Your task to perform on an android device: toggle notifications settings in the gmail app Image 0: 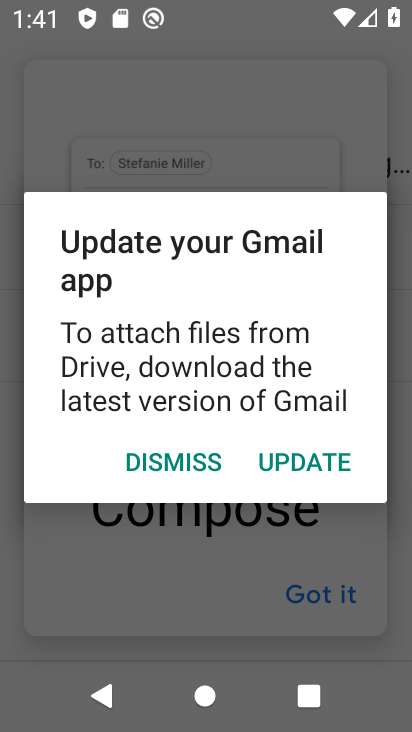
Step 0: press home button
Your task to perform on an android device: toggle notifications settings in the gmail app Image 1: 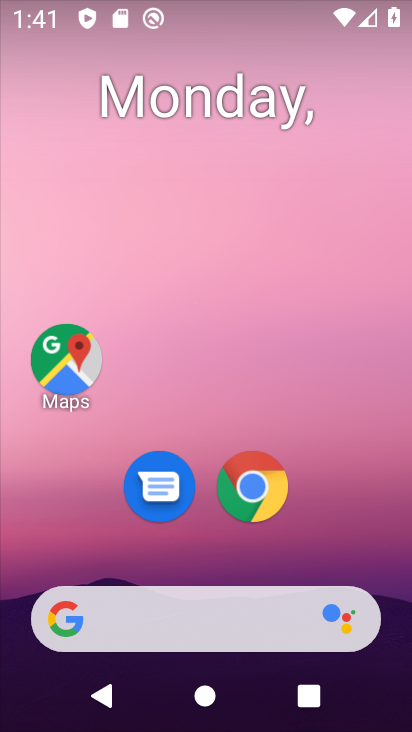
Step 1: drag from (310, 558) to (382, 31)
Your task to perform on an android device: toggle notifications settings in the gmail app Image 2: 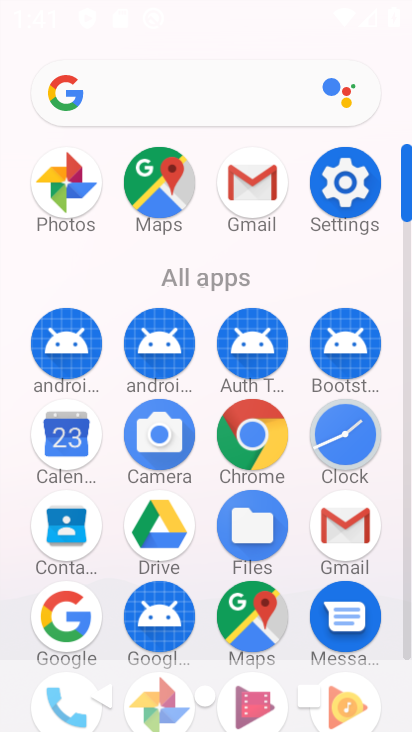
Step 2: click (249, 177)
Your task to perform on an android device: toggle notifications settings in the gmail app Image 3: 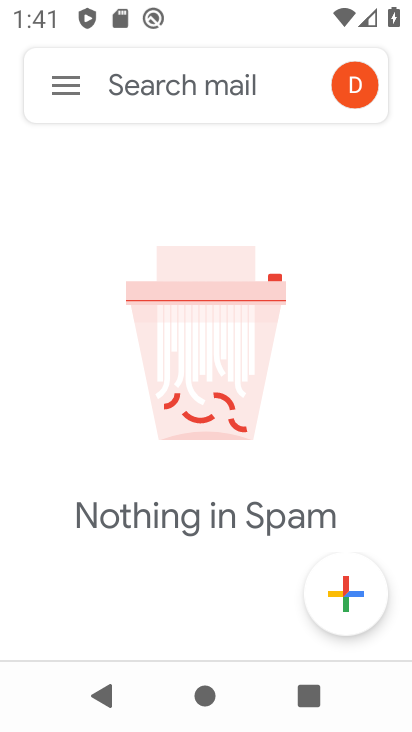
Step 3: click (35, 81)
Your task to perform on an android device: toggle notifications settings in the gmail app Image 4: 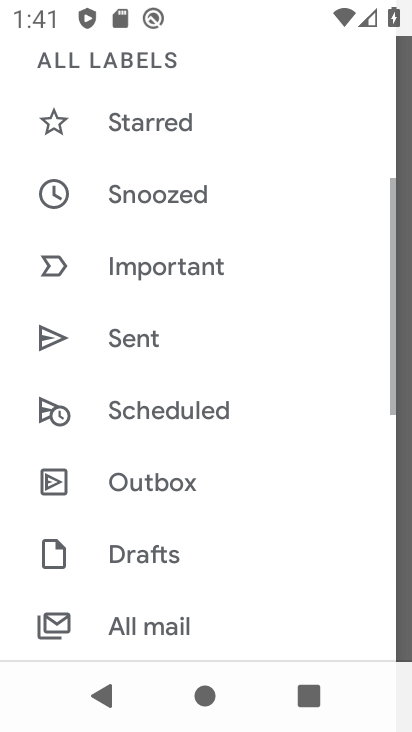
Step 4: drag from (69, 624) to (186, 134)
Your task to perform on an android device: toggle notifications settings in the gmail app Image 5: 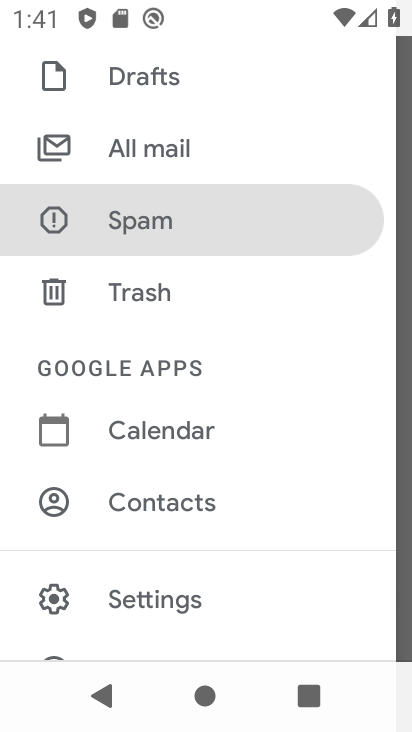
Step 5: click (137, 606)
Your task to perform on an android device: toggle notifications settings in the gmail app Image 6: 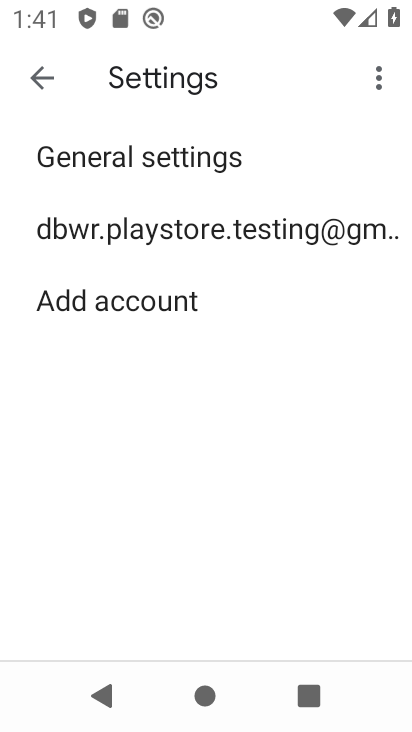
Step 6: click (196, 214)
Your task to perform on an android device: toggle notifications settings in the gmail app Image 7: 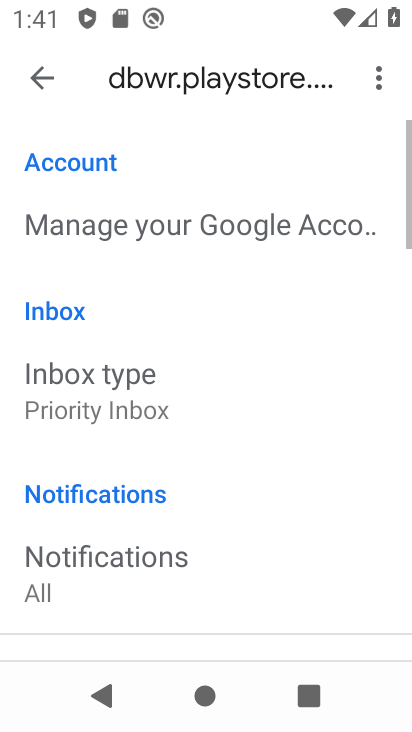
Step 7: drag from (129, 266) to (145, 221)
Your task to perform on an android device: toggle notifications settings in the gmail app Image 8: 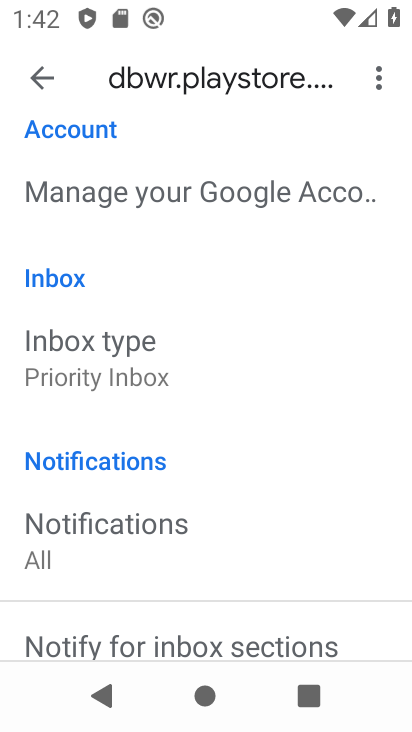
Step 8: drag from (128, 623) to (128, 183)
Your task to perform on an android device: toggle notifications settings in the gmail app Image 9: 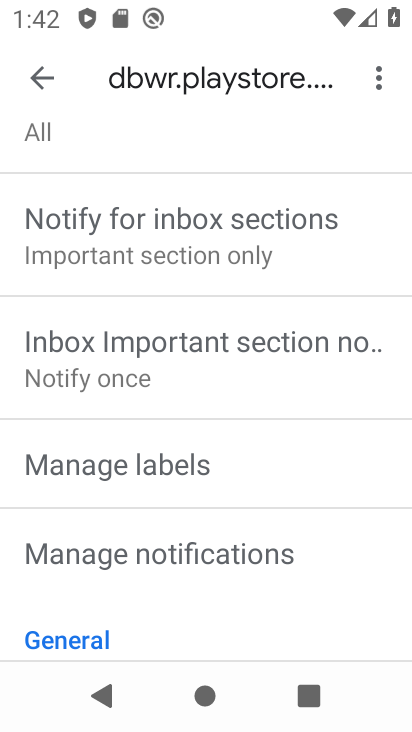
Step 9: click (112, 562)
Your task to perform on an android device: toggle notifications settings in the gmail app Image 10: 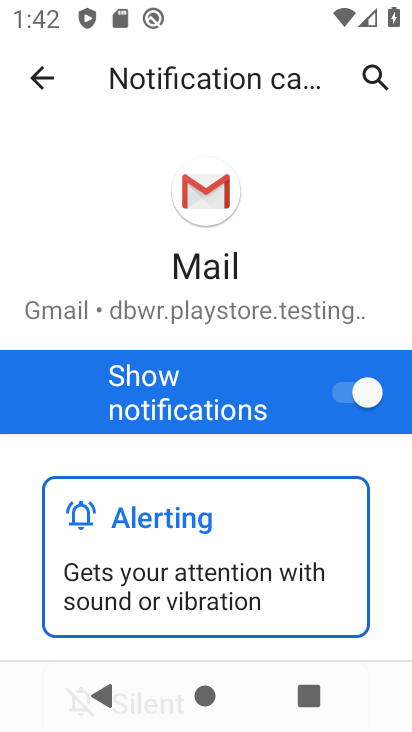
Step 10: click (327, 384)
Your task to perform on an android device: toggle notifications settings in the gmail app Image 11: 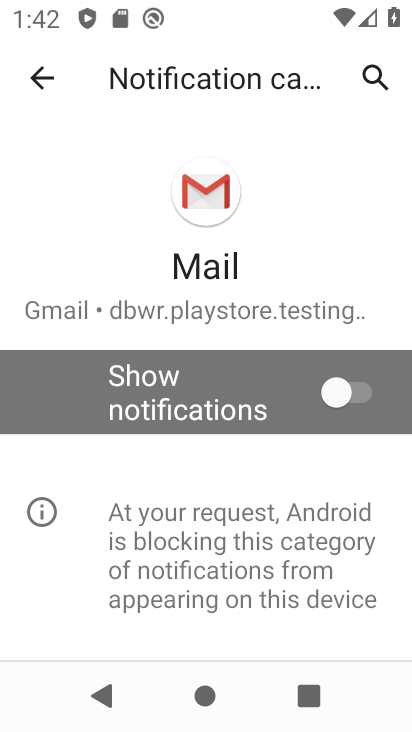
Step 11: task complete